Your task to perform on an android device: delete a single message in the gmail app Image 0: 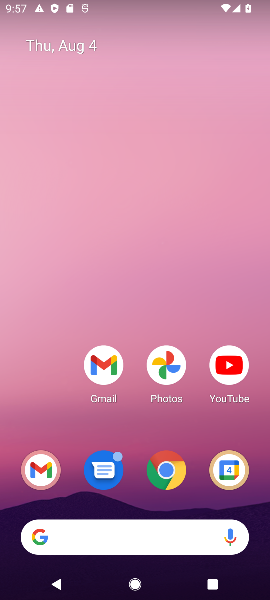
Step 0: click (98, 362)
Your task to perform on an android device: delete a single message in the gmail app Image 1: 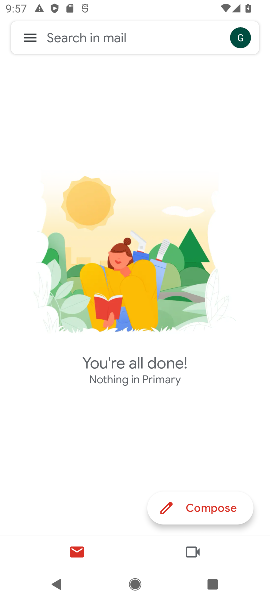
Step 1: click (30, 41)
Your task to perform on an android device: delete a single message in the gmail app Image 2: 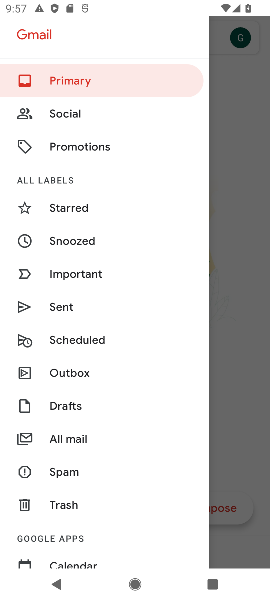
Step 2: click (66, 433)
Your task to perform on an android device: delete a single message in the gmail app Image 3: 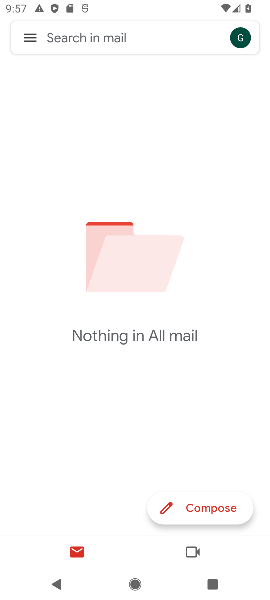
Step 3: task complete